Your task to perform on an android device: change keyboard looks Image 0: 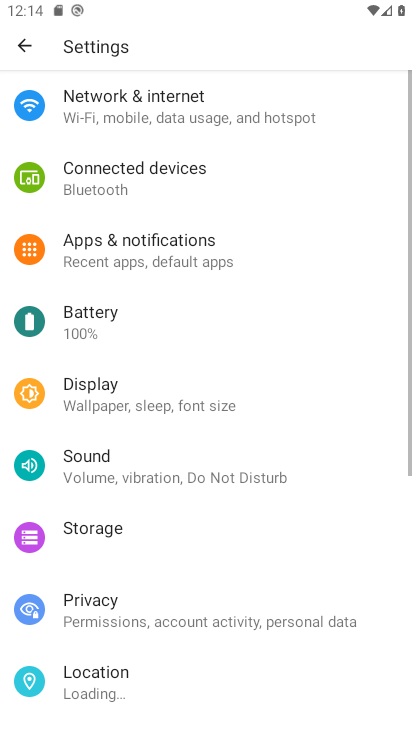
Step 0: drag from (186, 610) to (401, 597)
Your task to perform on an android device: change keyboard looks Image 1: 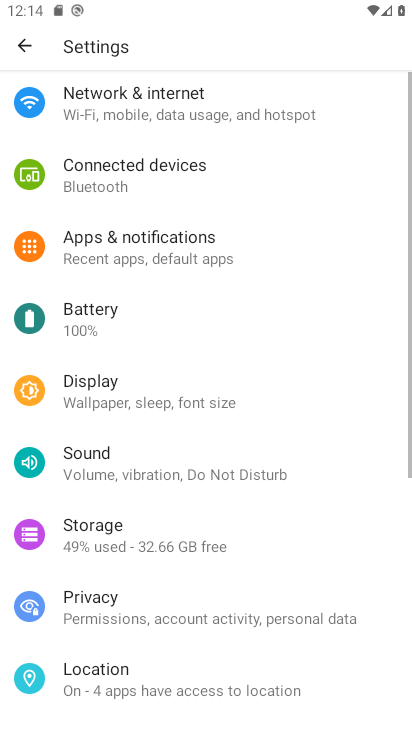
Step 1: press home button
Your task to perform on an android device: change keyboard looks Image 2: 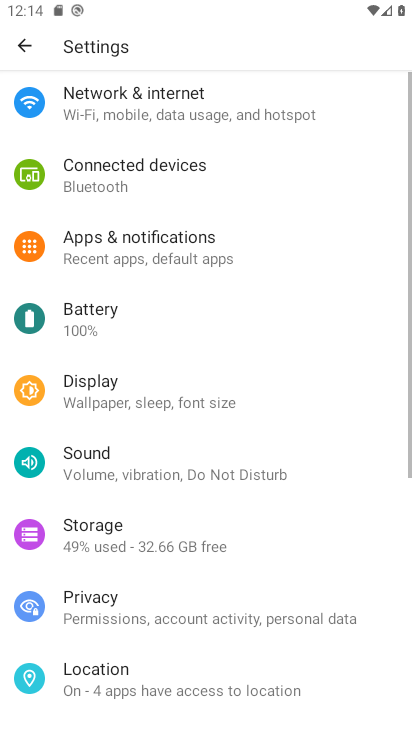
Step 2: drag from (401, 597) to (335, 238)
Your task to perform on an android device: change keyboard looks Image 3: 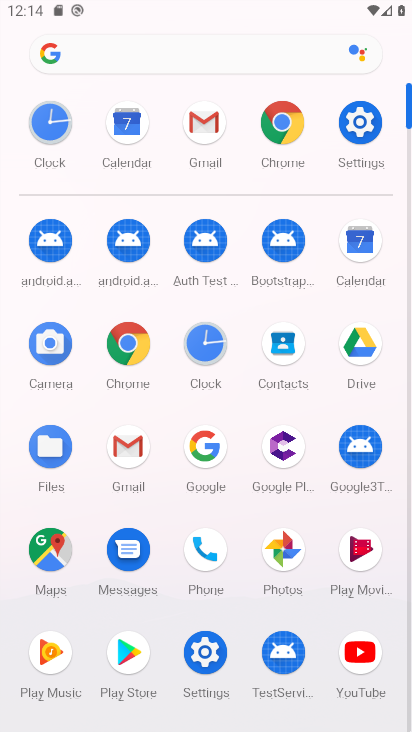
Step 3: click (365, 129)
Your task to perform on an android device: change keyboard looks Image 4: 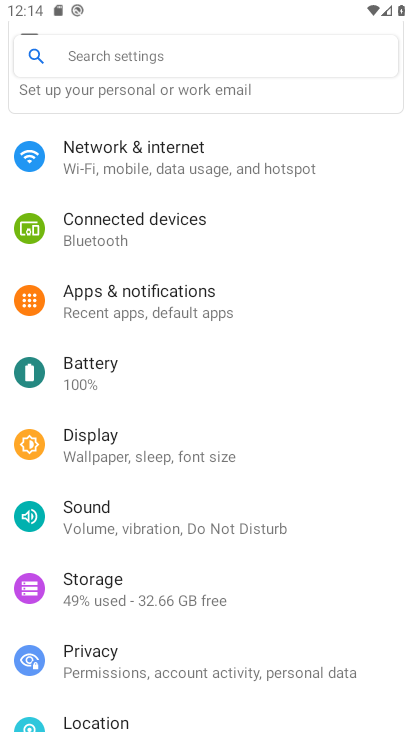
Step 4: drag from (195, 646) to (266, 196)
Your task to perform on an android device: change keyboard looks Image 5: 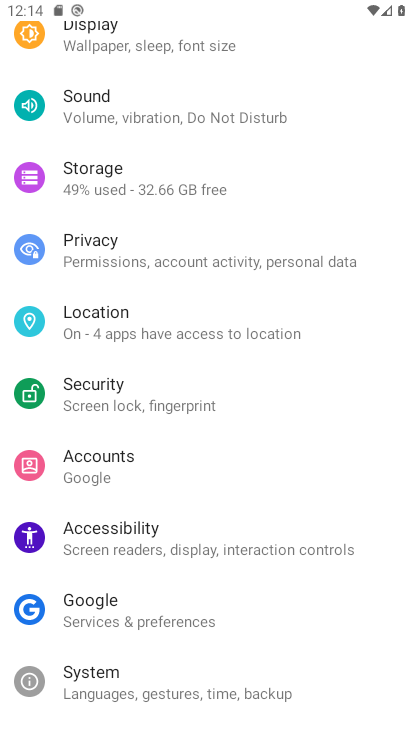
Step 5: drag from (200, 667) to (240, 354)
Your task to perform on an android device: change keyboard looks Image 6: 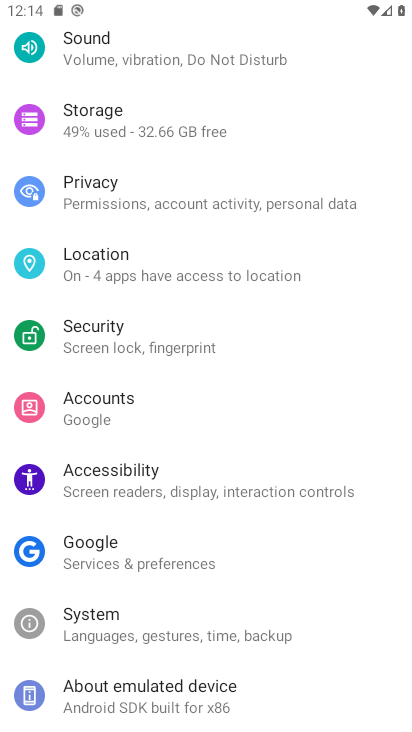
Step 6: click (103, 626)
Your task to perform on an android device: change keyboard looks Image 7: 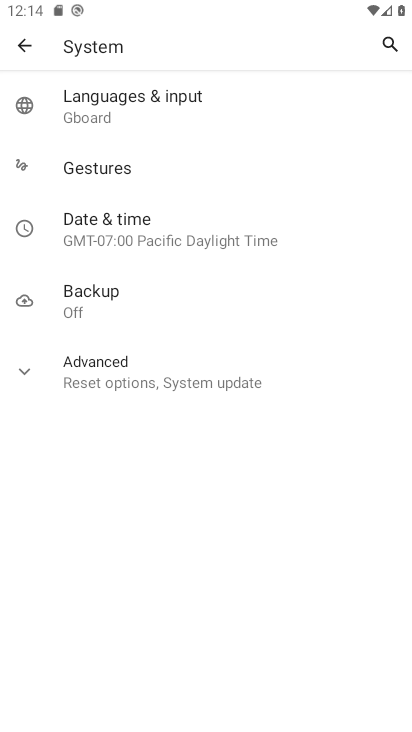
Step 7: click (130, 82)
Your task to perform on an android device: change keyboard looks Image 8: 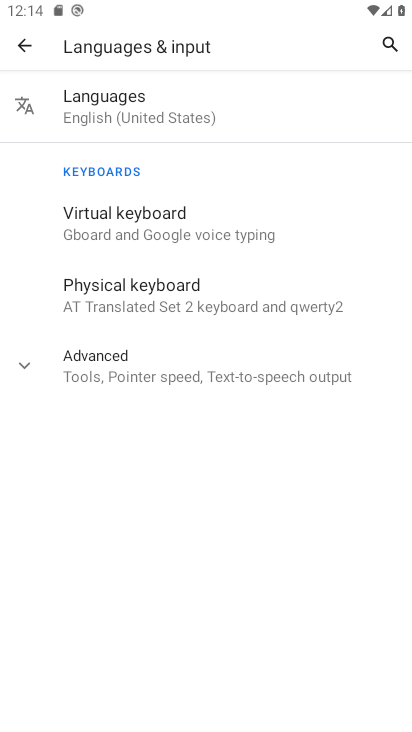
Step 8: click (159, 239)
Your task to perform on an android device: change keyboard looks Image 9: 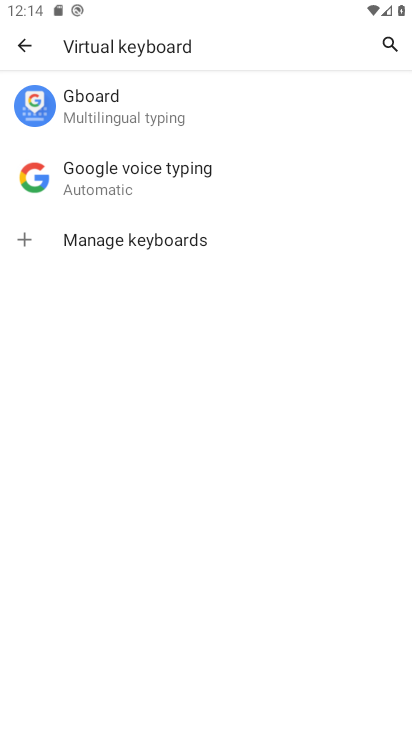
Step 9: click (141, 104)
Your task to perform on an android device: change keyboard looks Image 10: 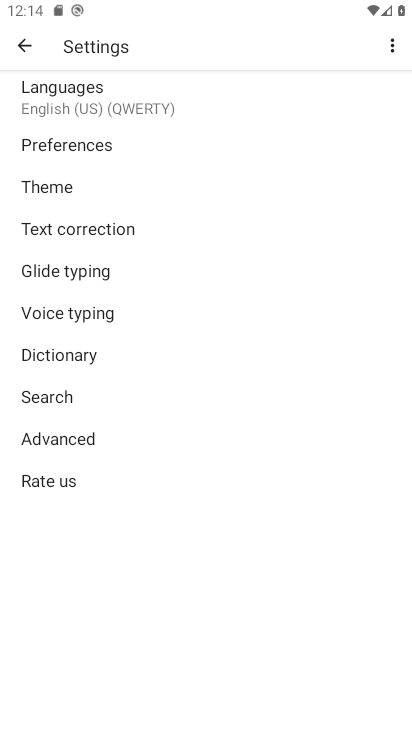
Step 10: click (31, 171)
Your task to perform on an android device: change keyboard looks Image 11: 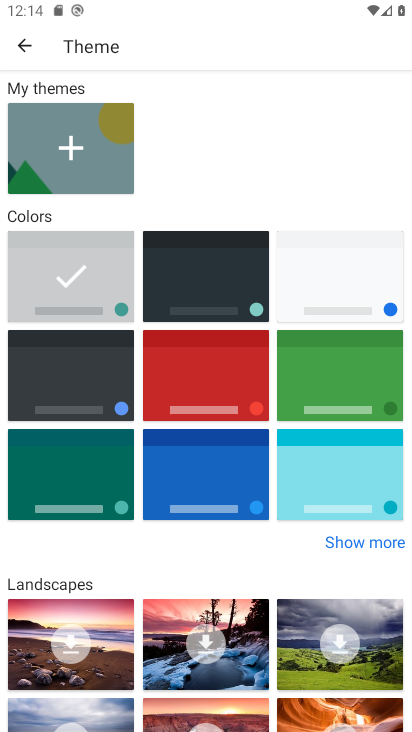
Step 11: click (217, 460)
Your task to perform on an android device: change keyboard looks Image 12: 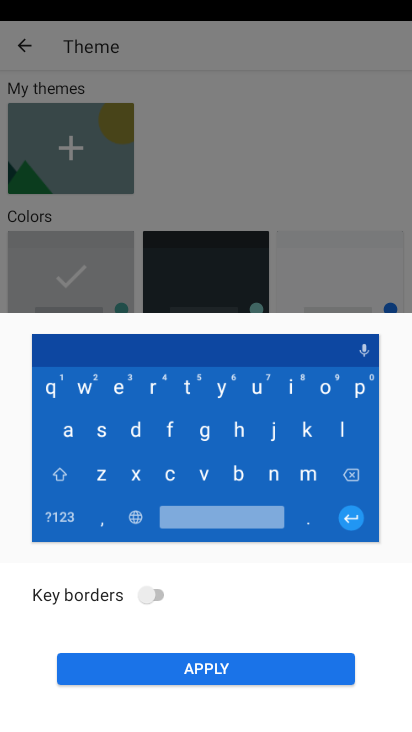
Step 12: click (154, 584)
Your task to perform on an android device: change keyboard looks Image 13: 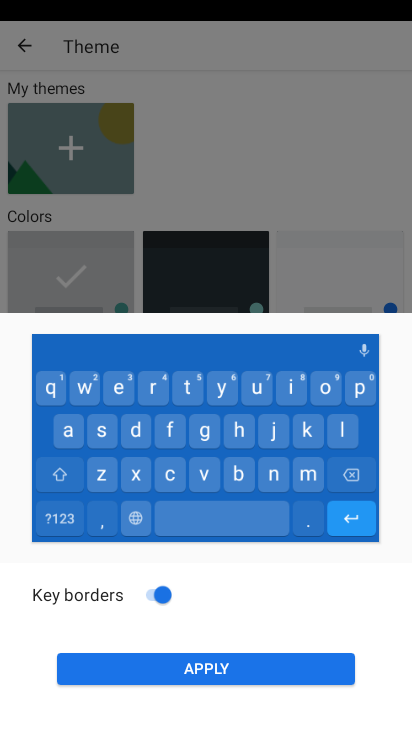
Step 13: click (261, 665)
Your task to perform on an android device: change keyboard looks Image 14: 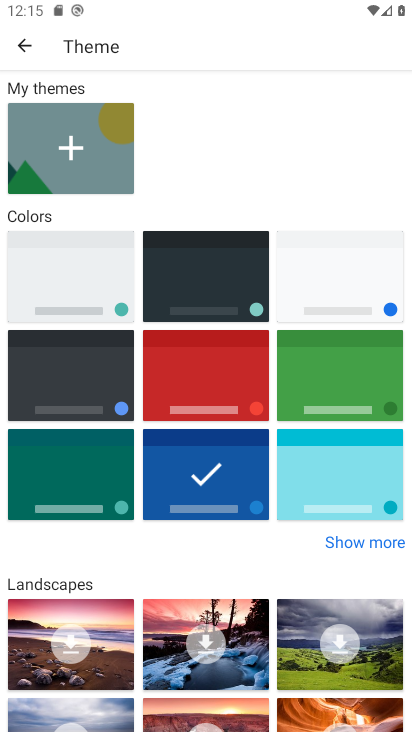
Step 14: task complete